Your task to perform on an android device: turn on notifications settings in the gmail app Image 0: 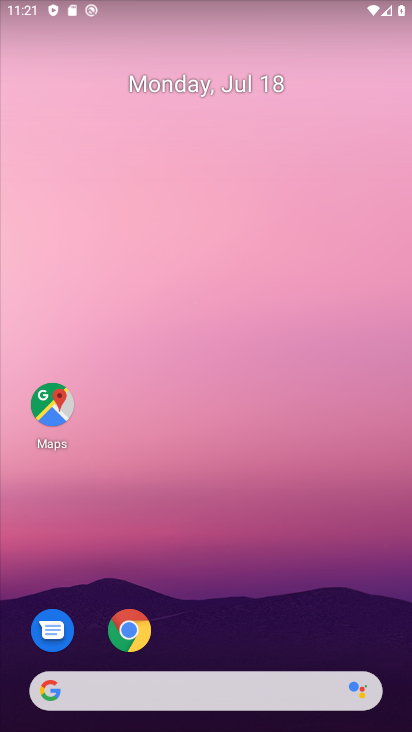
Step 0: drag from (217, 666) to (254, 64)
Your task to perform on an android device: turn on notifications settings in the gmail app Image 1: 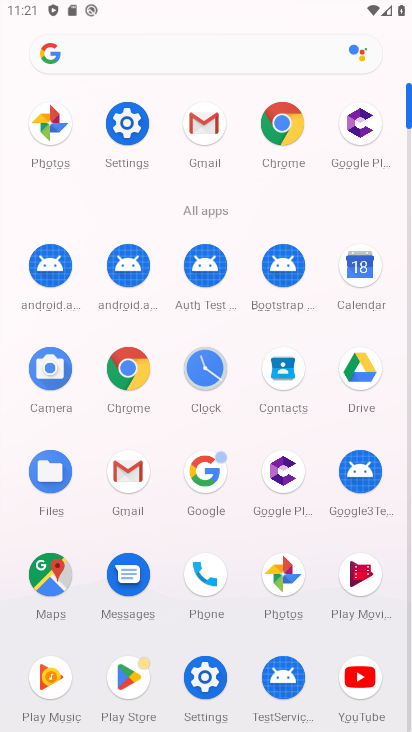
Step 1: click (134, 145)
Your task to perform on an android device: turn on notifications settings in the gmail app Image 2: 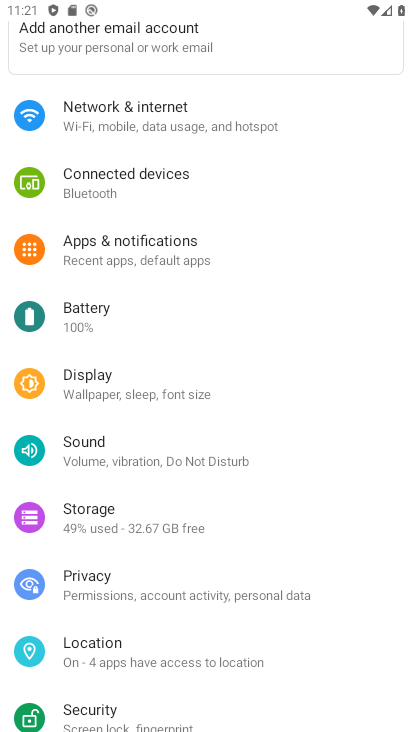
Step 2: click (163, 247)
Your task to perform on an android device: turn on notifications settings in the gmail app Image 3: 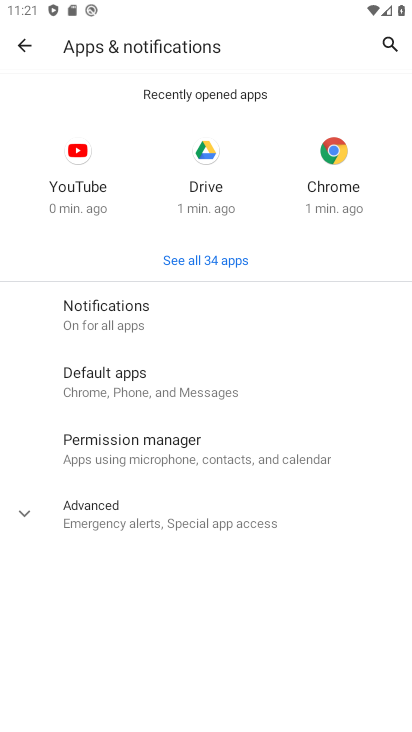
Step 3: click (150, 322)
Your task to perform on an android device: turn on notifications settings in the gmail app Image 4: 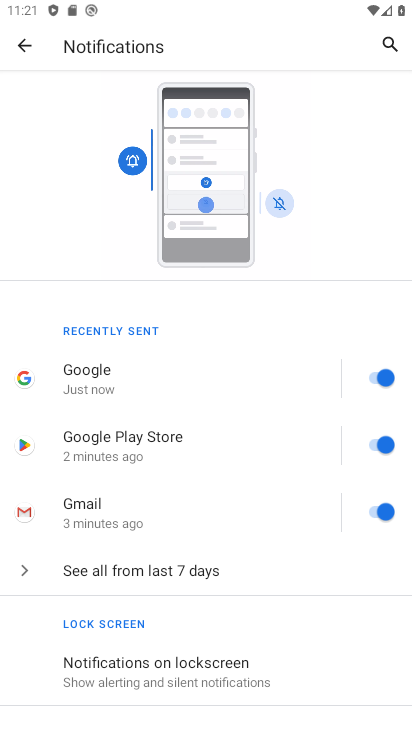
Step 4: task complete